Your task to perform on an android device: Open Google Chrome and click the shortcut for Amazon.com Image 0: 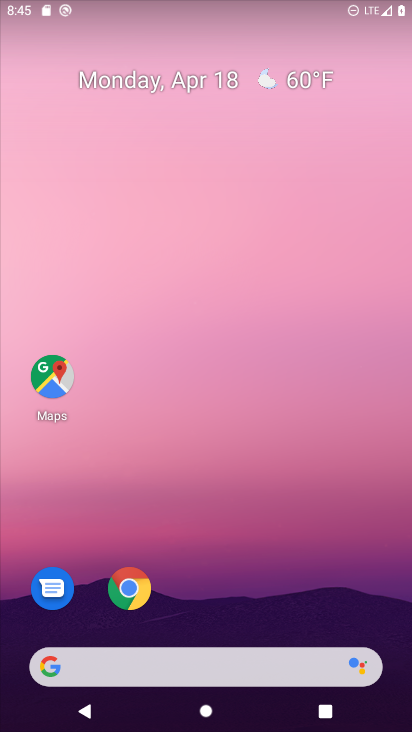
Step 0: click (125, 586)
Your task to perform on an android device: Open Google Chrome and click the shortcut for Amazon.com Image 1: 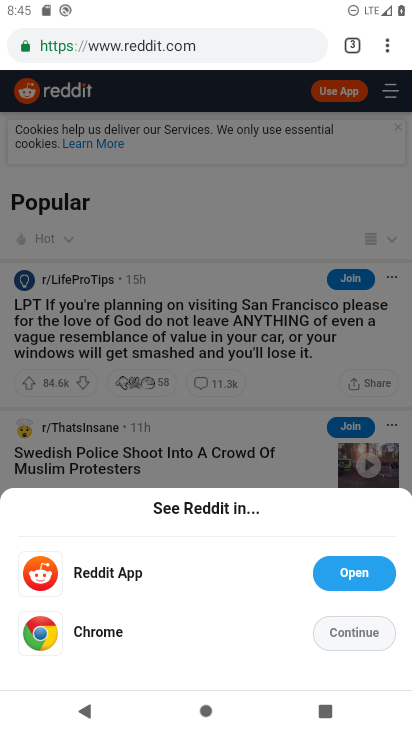
Step 1: click (386, 45)
Your task to perform on an android device: Open Google Chrome and click the shortcut for Amazon.com Image 2: 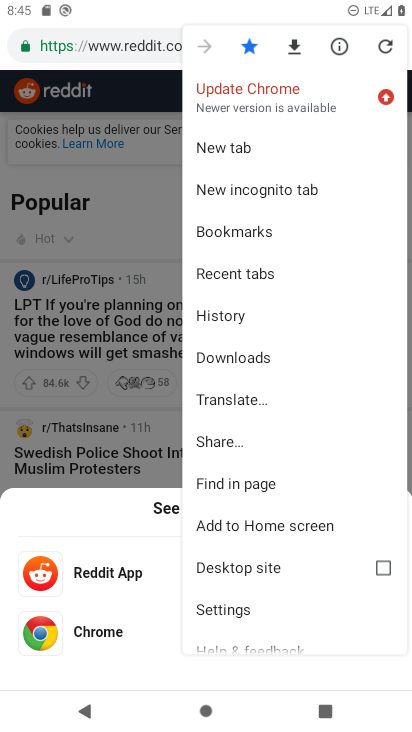
Step 2: click (232, 151)
Your task to perform on an android device: Open Google Chrome and click the shortcut for Amazon.com Image 3: 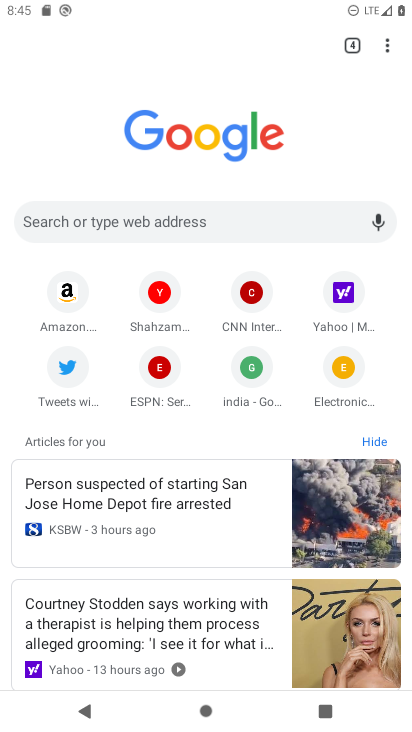
Step 3: click (60, 295)
Your task to perform on an android device: Open Google Chrome and click the shortcut for Amazon.com Image 4: 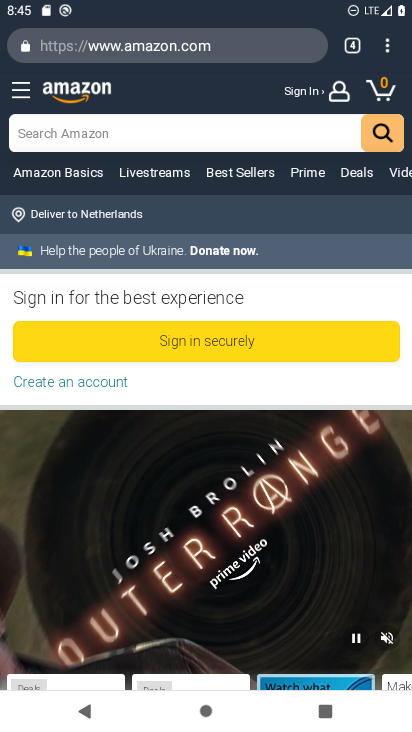
Step 4: task complete